Your task to perform on an android device: Go to Amazon Image 0: 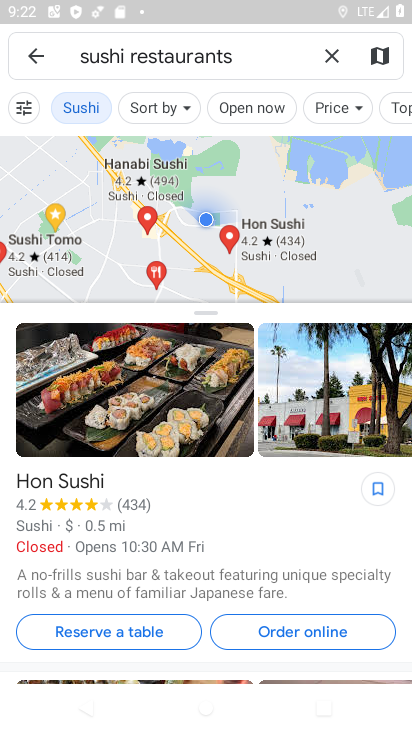
Step 0: press home button
Your task to perform on an android device: Go to Amazon Image 1: 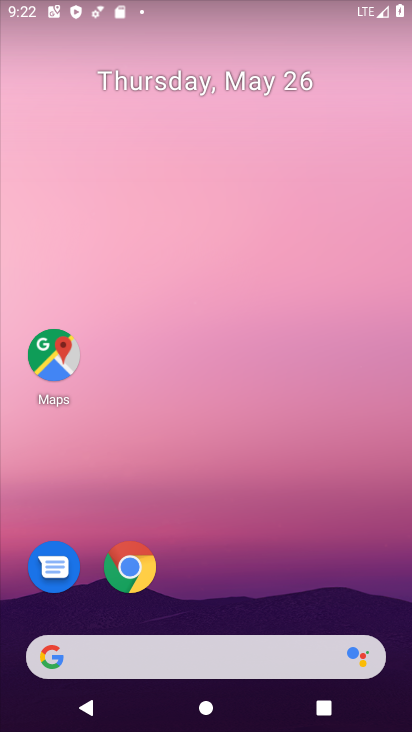
Step 1: click (133, 569)
Your task to perform on an android device: Go to Amazon Image 2: 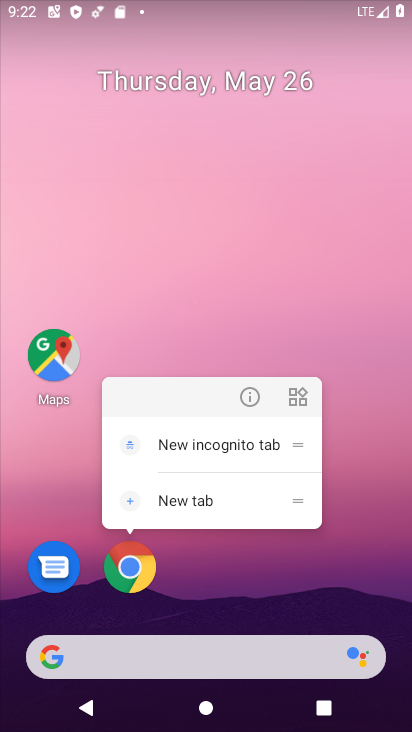
Step 2: click (122, 570)
Your task to perform on an android device: Go to Amazon Image 3: 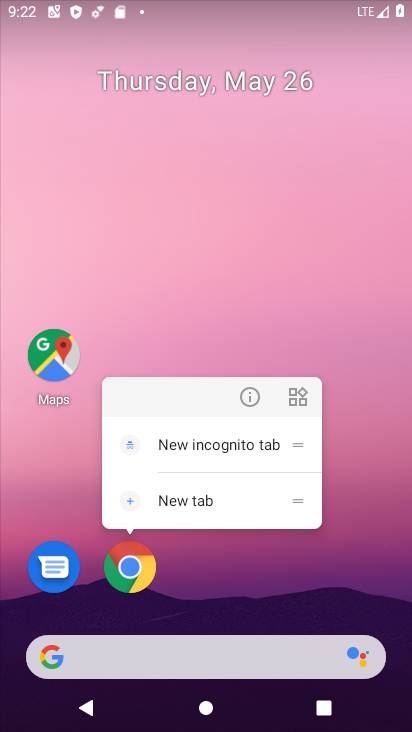
Step 3: click (122, 570)
Your task to perform on an android device: Go to Amazon Image 4: 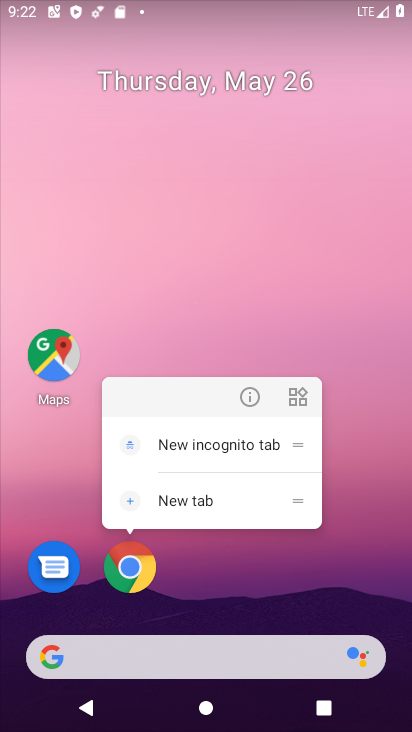
Step 4: click (122, 570)
Your task to perform on an android device: Go to Amazon Image 5: 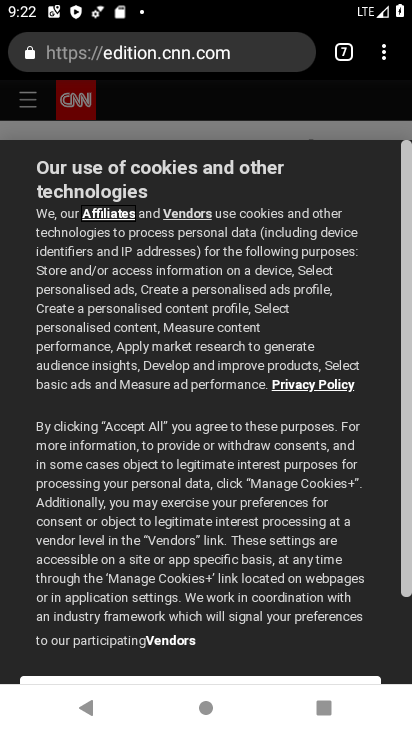
Step 5: click (390, 46)
Your task to perform on an android device: Go to Amazon Image 6: 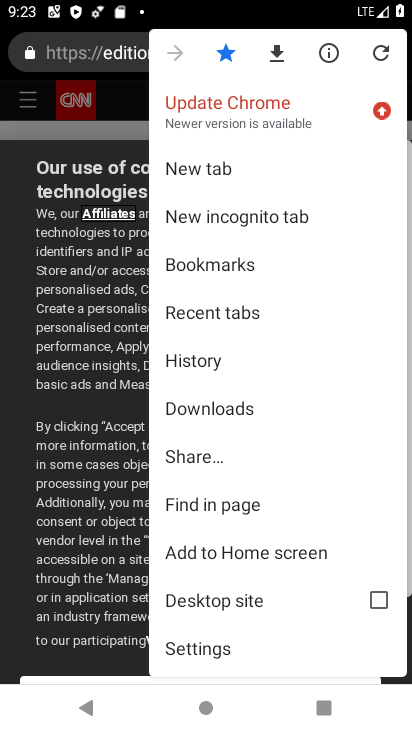
Step 6: click (207, 168)
Your task to perform on an android device: Go to Amazon Image 7: 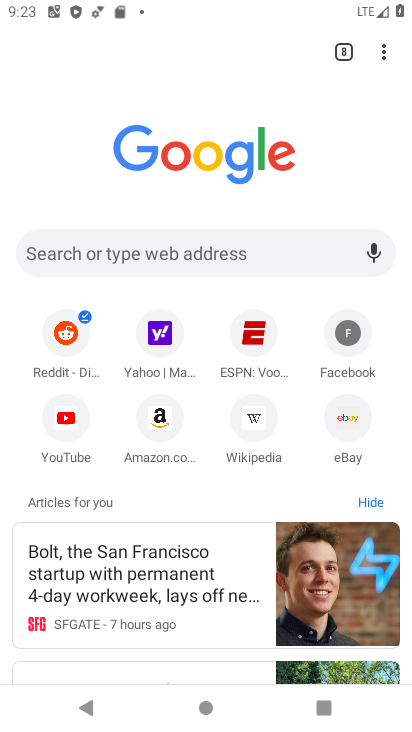
Step 7: click (162, 419)
Your task to perform on an android device: Go to Amazon Image 8: 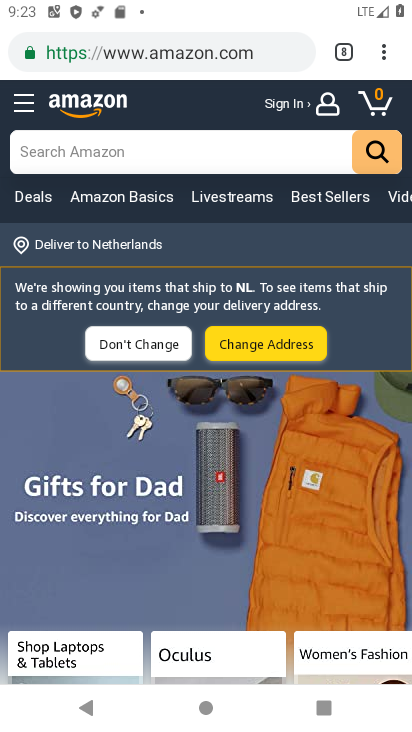
Step 8: task complete